Your task to perform on an android device: make emails show in primary in the gmail app Image 0: 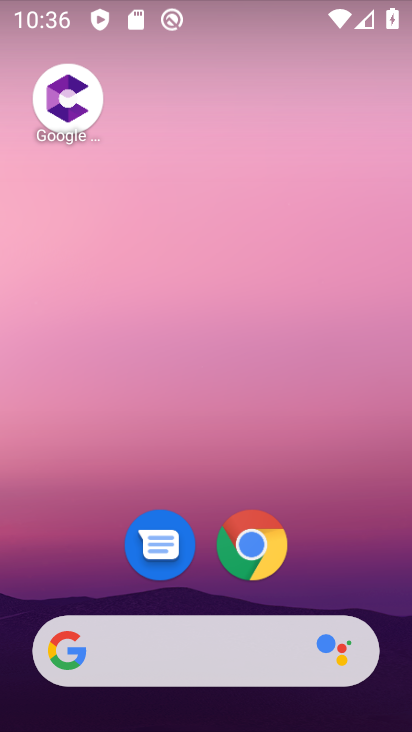
Step 0: drag from (393, 615) to (317, 111)
Your task to perform on an android device: make emails show in primary in the gmail app Image 1: 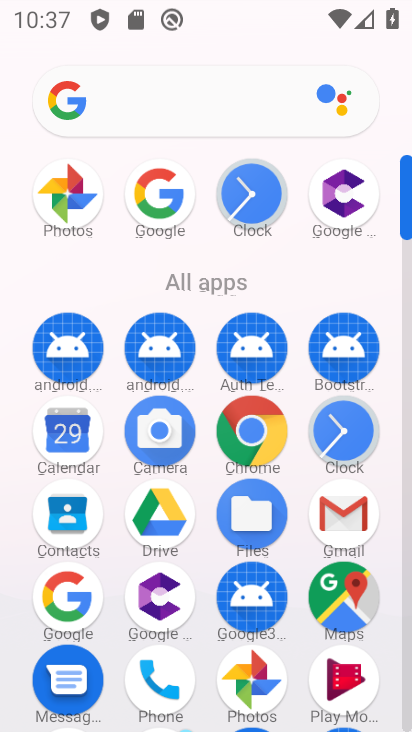
Step 1: click (313, 521)
Your task to perform on an android device: make emails show in primary in the gmail app Image 2: 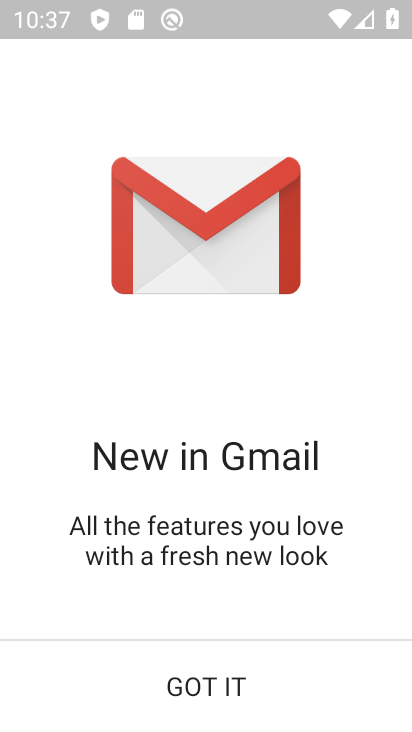
Step 2: click (221, 625)
Your task to perform on an android device: make emails show in primary in the gmail app Image 3: 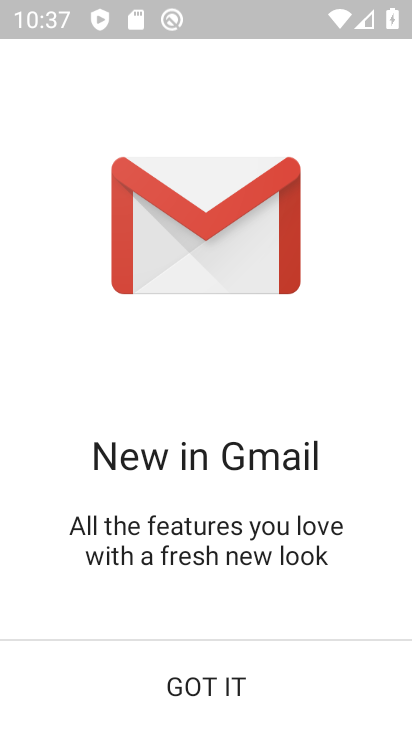
Step 3: click (198, 653)
Your task to perform on an android device: make emails show in primary in the gmail app Image 4: 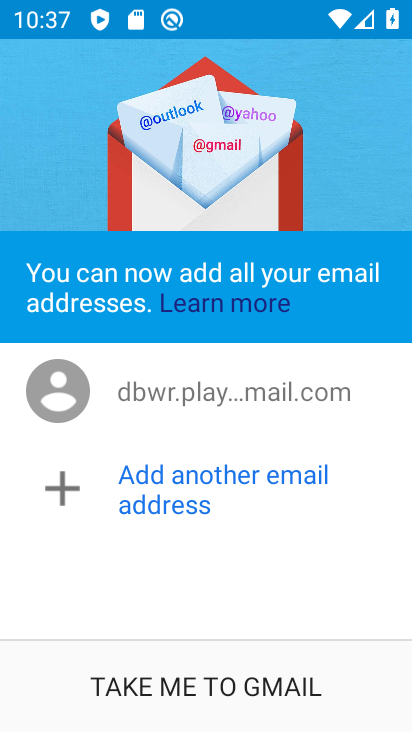
Step 4: click (198, 653)
Your task to perform on an android device: make emails show in primary in the gmail app Image 5: 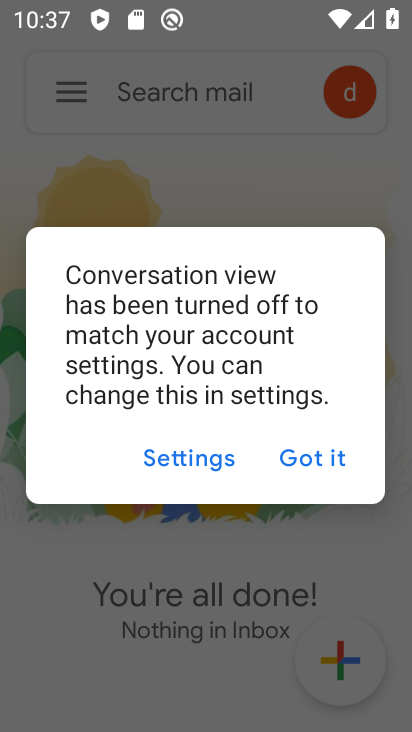
Step 5: click (310, 478)
Your task to perform on an android device: make emails show in primary in the gmail app Image 6: 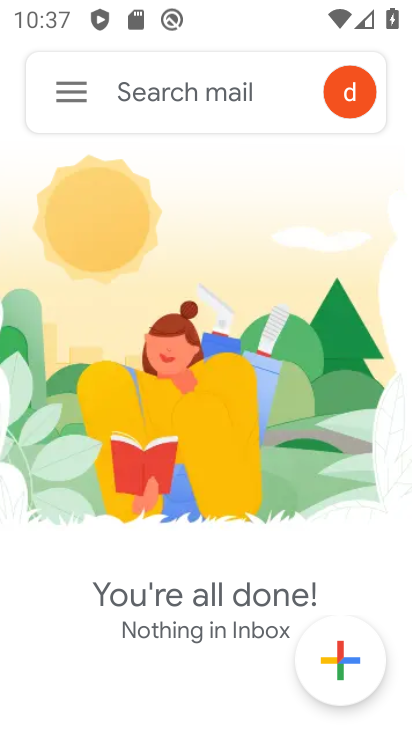
Step 6: task complete